Your task to perform on an android device: Do I have any events today? Image 0: 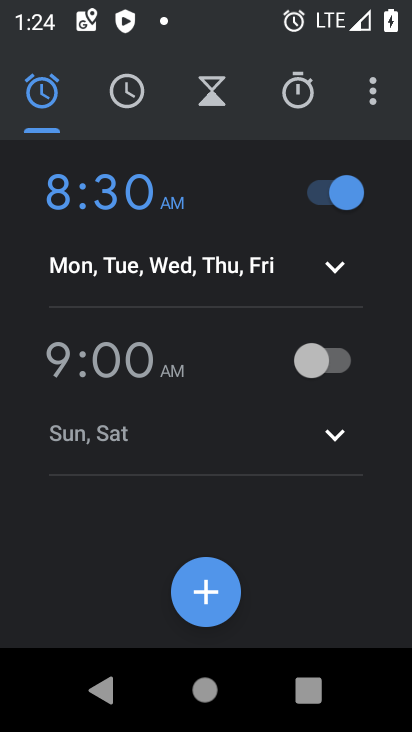
Step 0: press home button
Your task to perform on an android device: Do I have any events today? Image 1: 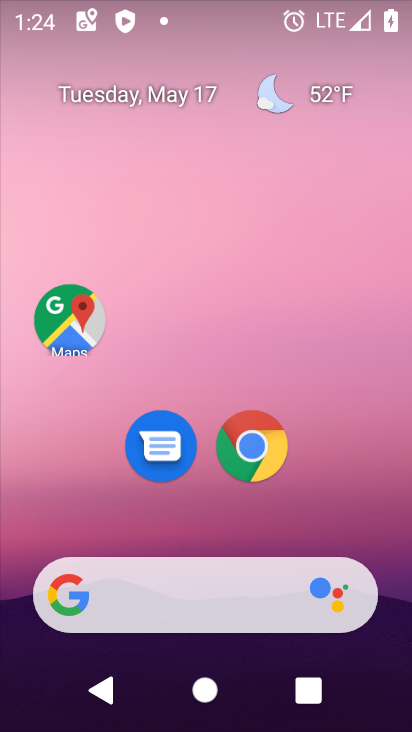
Step 1: drag from (167, 533) to (219, 366)
Your task to perform on an android device: Do I have any events today? Image 2: 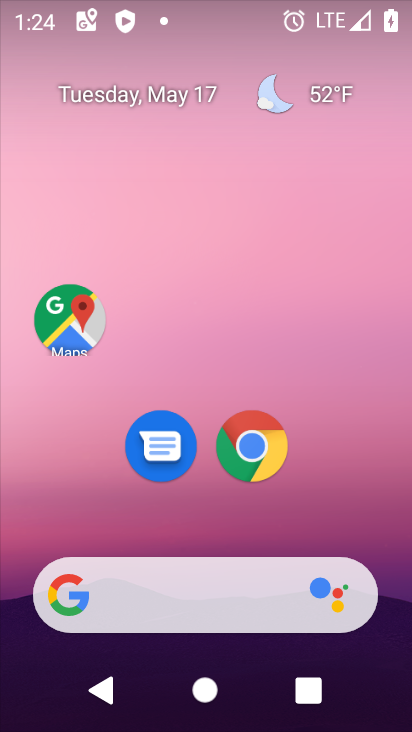
Step 2: drag from (158, 518) to (162, 192)
Your task to perform on an android device: Do I have any events today? Image 3: 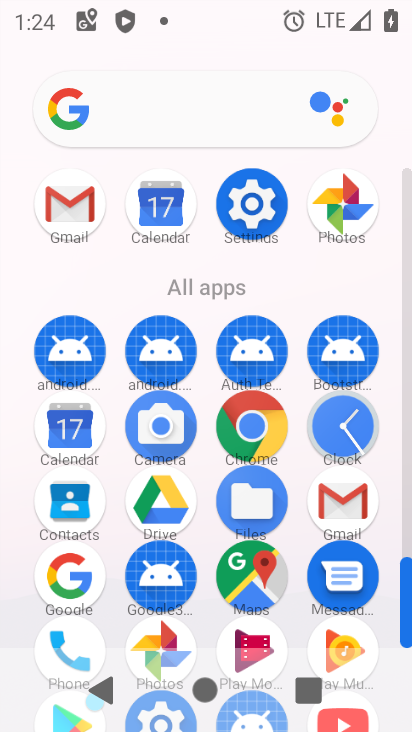
Step 3: click (71, 433)
Your task to perform on an android device: Do I have any events today? Image 4: 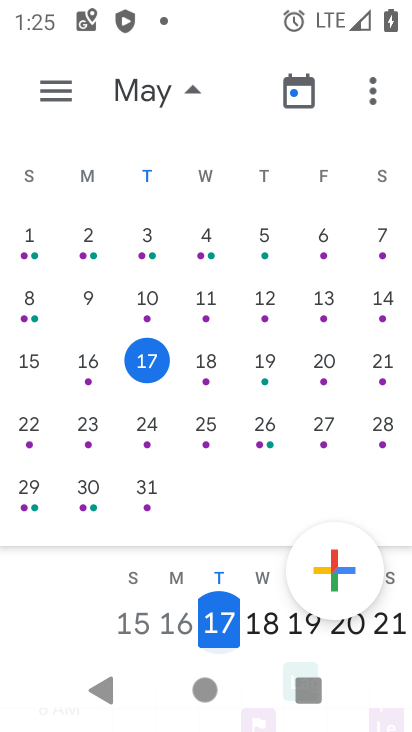
Step 4: task complete